Your task to perform on an android device: Open Google Maps and go to "Timeline" Image 0: 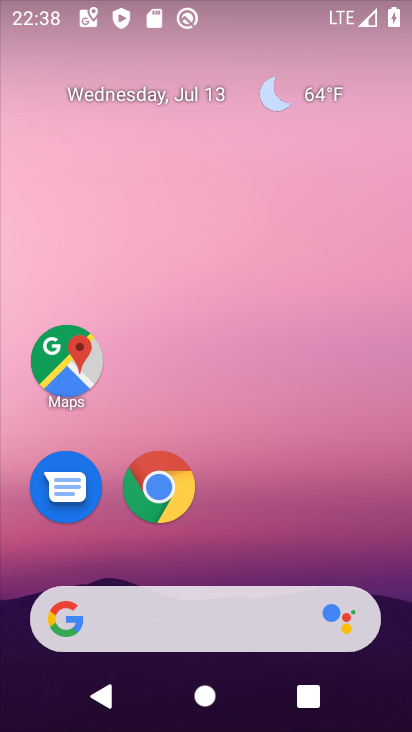
Step 0: click (62, 373)
Your task to perform on an android device: Open Google Maps and go to "Timeline" Image 1: 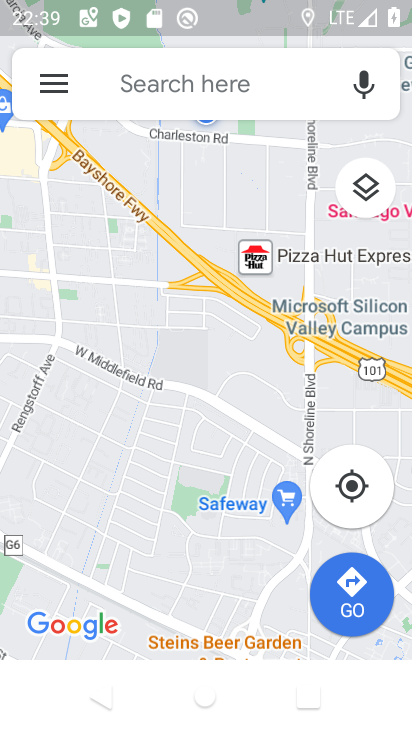
Step 1: click (58, 86)
Your task to perform on an android device: Open Google Maps and go to "Timeline" Image 2: 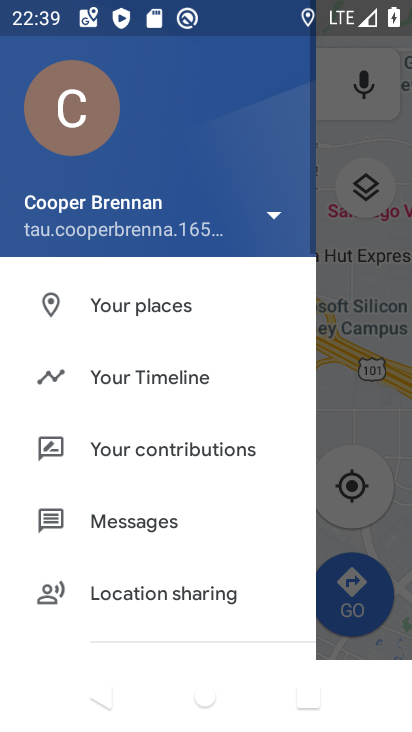
Step 2: click (111, 367)
Your task to perform on an android device: Open Google Maps and go to "Timeline" Image 3: 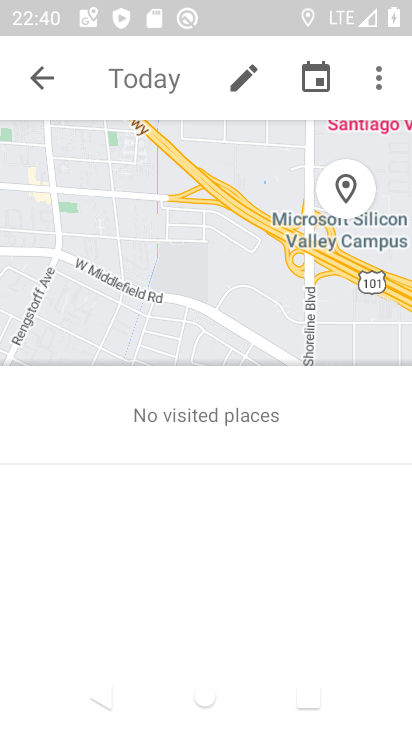
Step 3: task complete